Your task to perform on an android device: Go to ESPN.com Image 0: 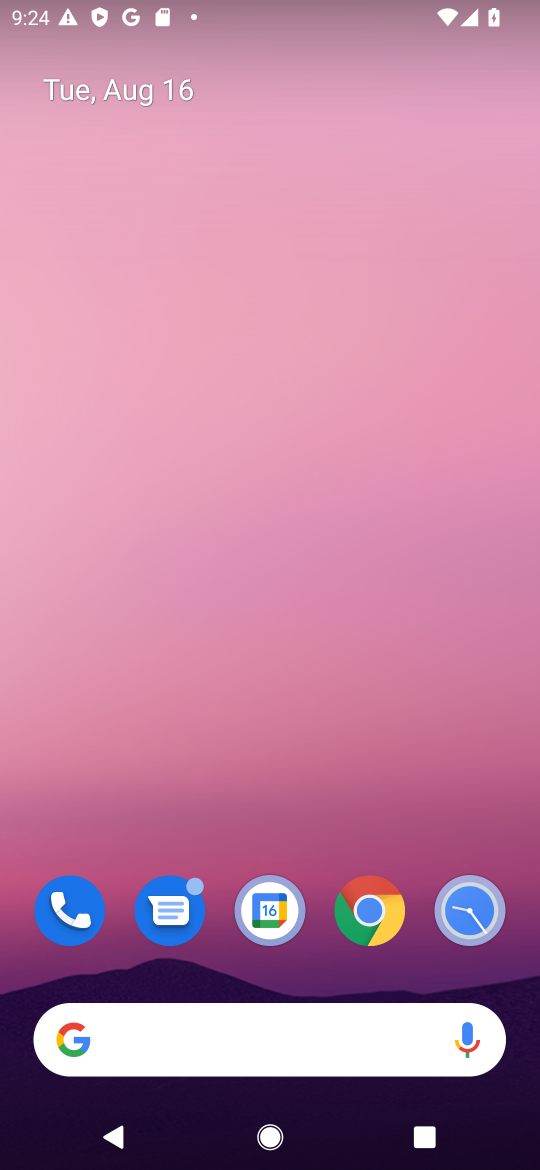
Step 0: click (220, 1025)
Your task to perform on an android device: Go to ESPN.com Image 1: 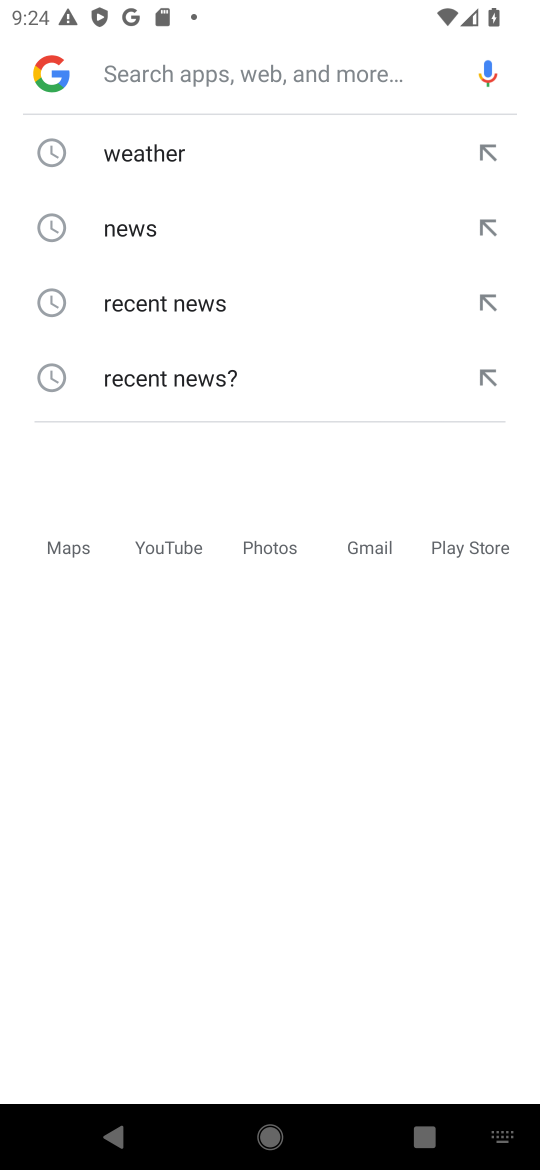
Step 1: type "espn.com"
Your task to perform on an android device: Go to ESPN.com Image 2: 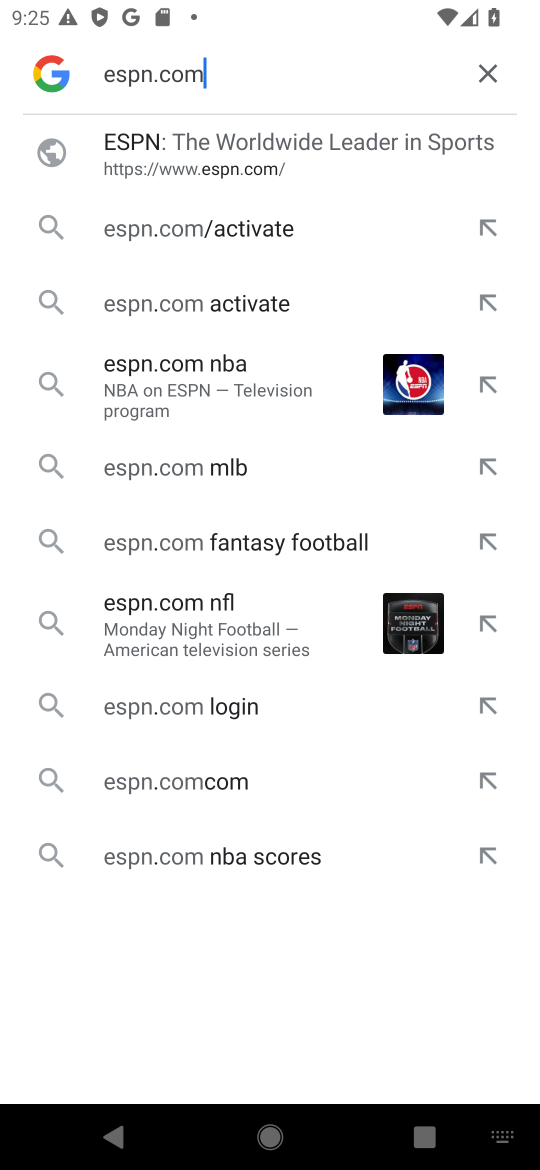
Step 2: click (259, 165)
Your task to perform on an android device: Go to ESPN.com Image 3: 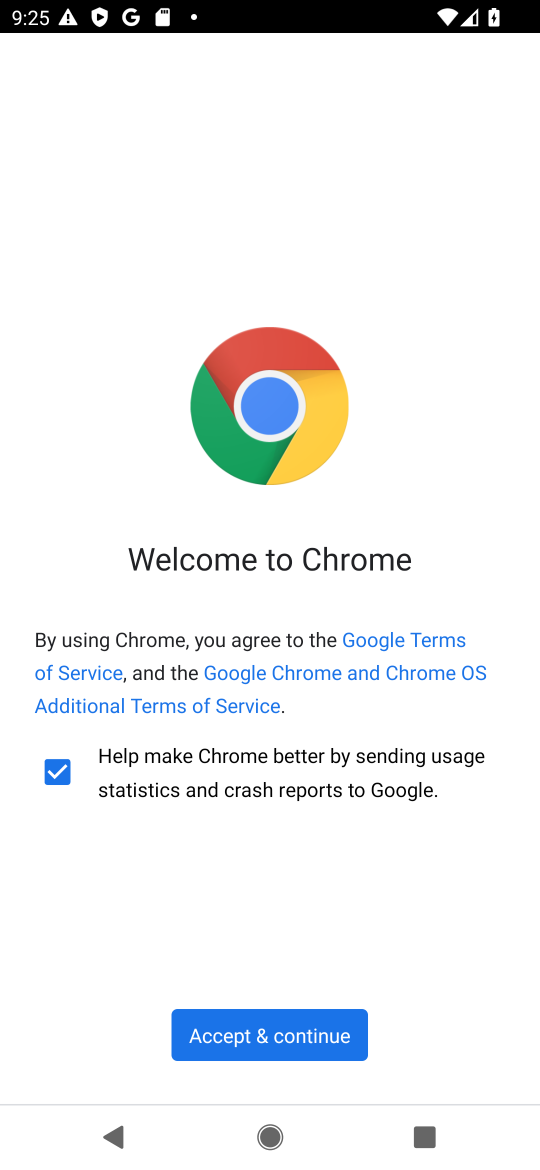
Step 3: click (323, 1030)
Your task to perform on an android device: Go to ESPN.com Image 4: 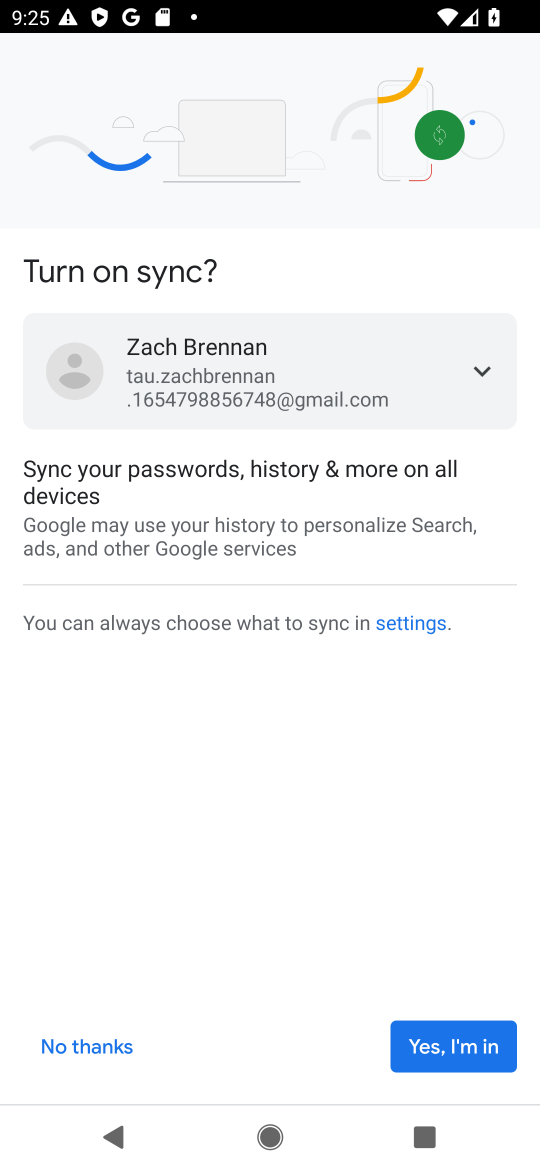
Step 4: click (460, 1058)
Your task to perform on an android device: Go to ESPN.com Image 5: 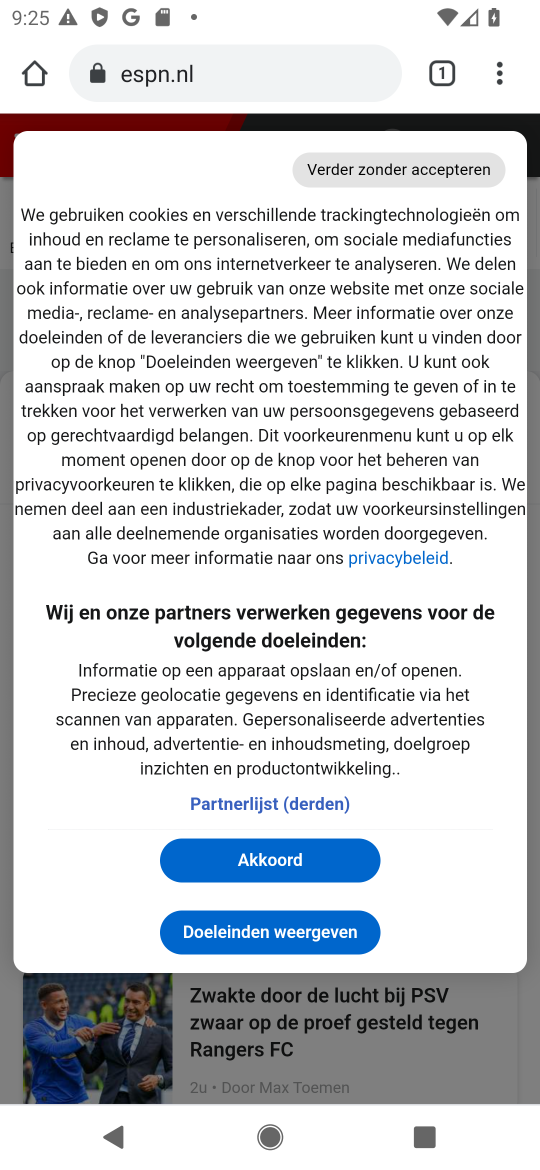
Step 5: click (484, 175)
Your task to perform on an android device: Go to ESPN.com Image 6: 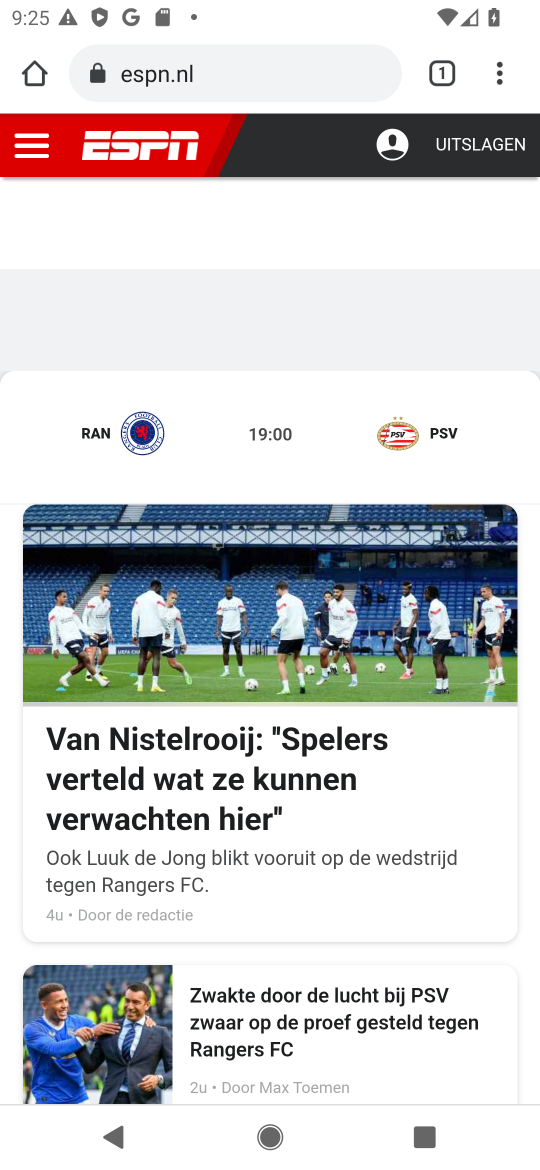
Step 6: task complete